Your task to perform on an android device: Open the web browser Image 0: 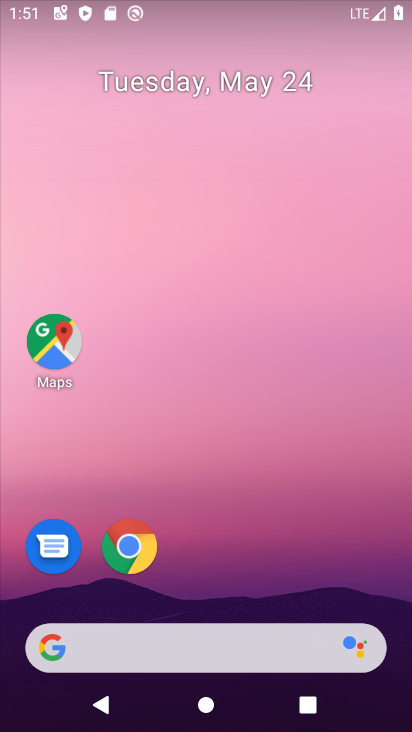
Step 0: click (306, 19)
Your task to perform on an android device: Open the web browser Image 1: 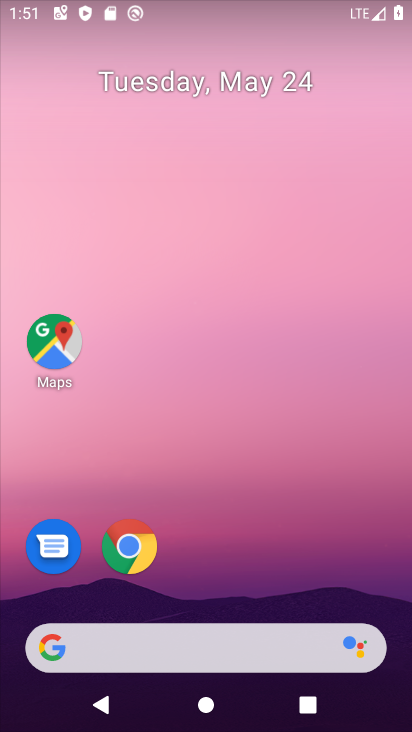
Step 1: click (137, 551)
Your task to perform on an android device: Open the web browser Image 2: 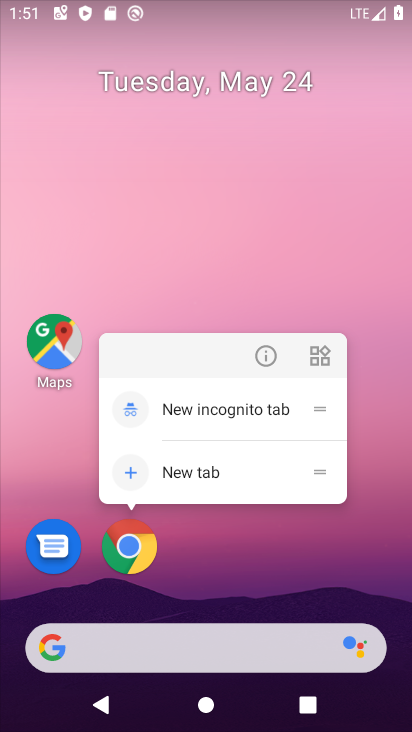
Step 2: click (272, 350)
Your task to perform on an android device: Open the web browser Image 3: 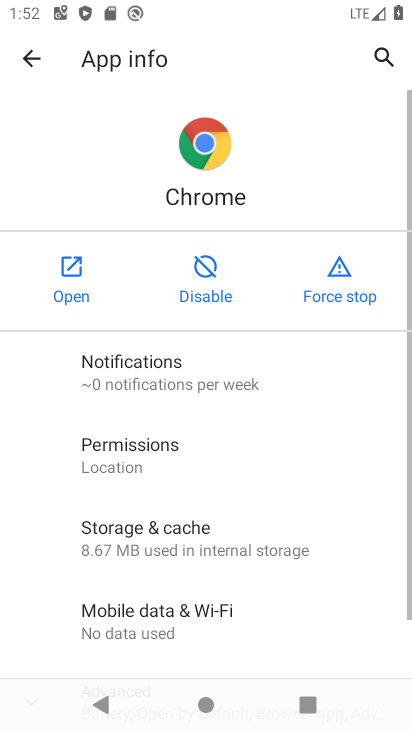
Step 3: click (67, 287)
Your task to perform on an android device: Open the web browser Image 4: 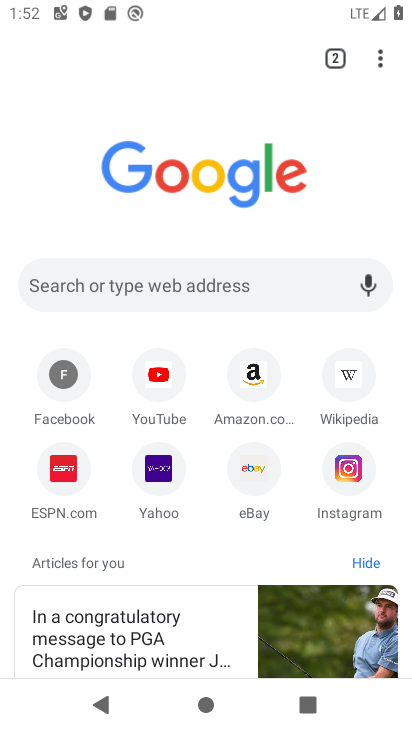
Step 4: task complete